Your task to perform on an android device: star an email in the gmail app Image 0: 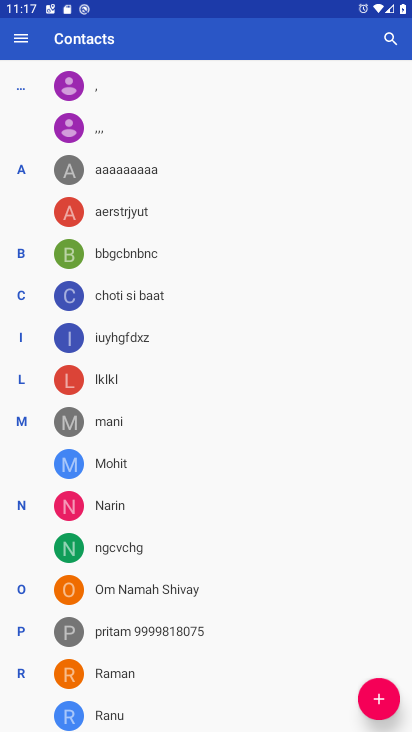
Step 0: press home button
Your task to perform on an android device: star an email in the gmail app Image 1: 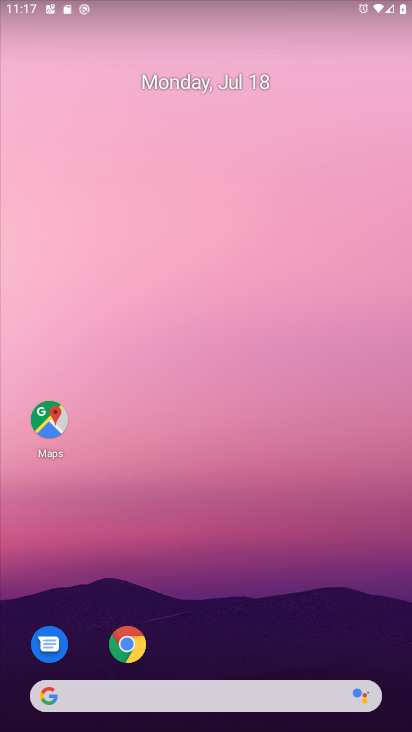
Step 1: drag from (282, 645) to (218, 61)
Your task to perform on an android device: star an email in the gmail app Image 2: 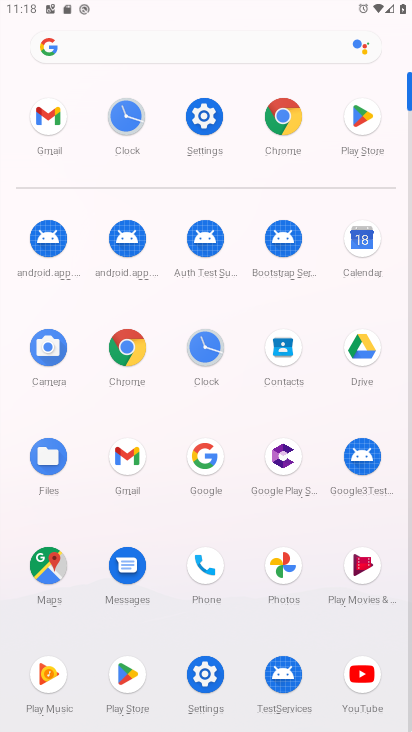
Step 2: click (56, 132)
Your task to perform on an android device: star an email in the gmail app Image 3: 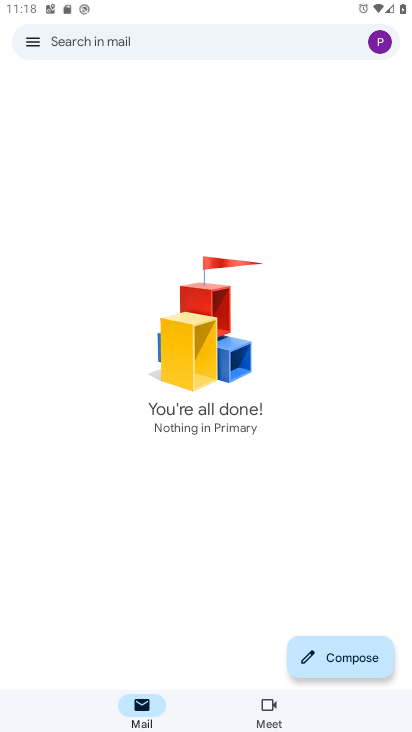
Step 3: click (23, 54)
Your task to perform on an android device: star an email in the gmail app Image 4: 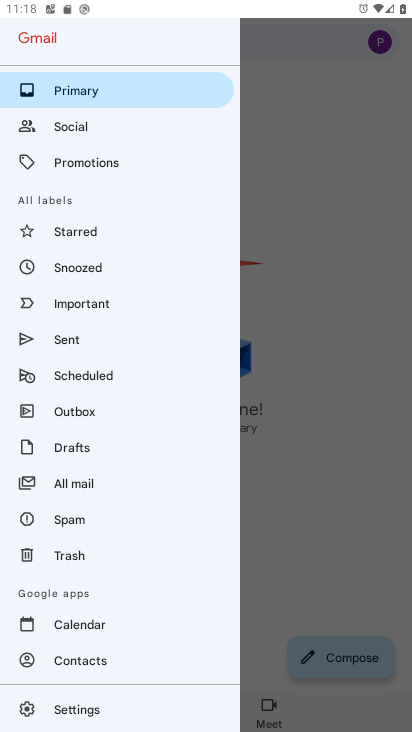
Step 4: click (72, 242)
Your task to perform on an android device: star an email in the gmail app Image 5: 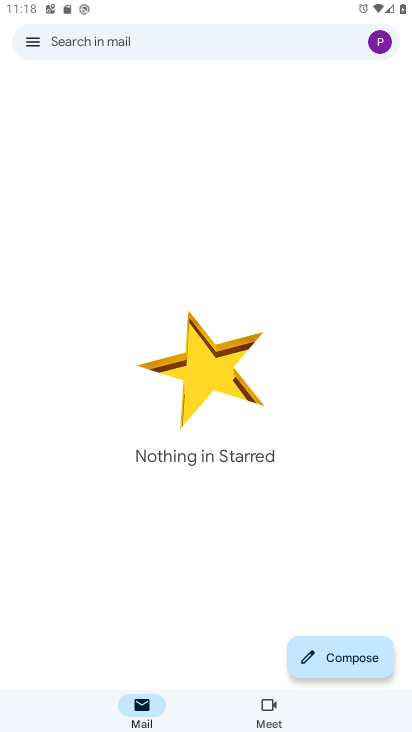
Step 5: task complete